Your task to perform on an android device: Go to eBay Image 0: 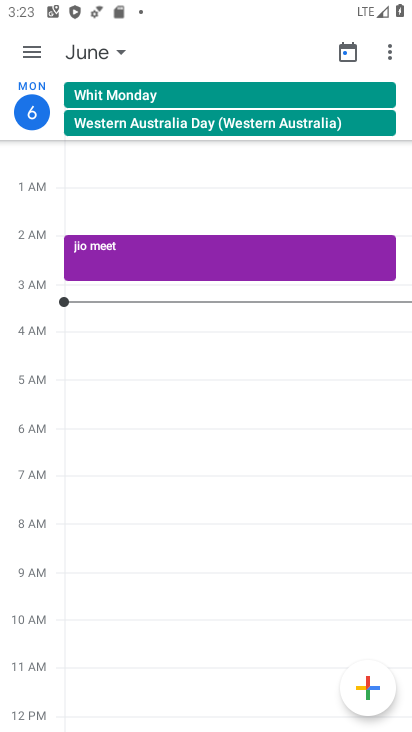
Step 0: press home button
Your task to perform on an android device: Go to eBay Image 1: 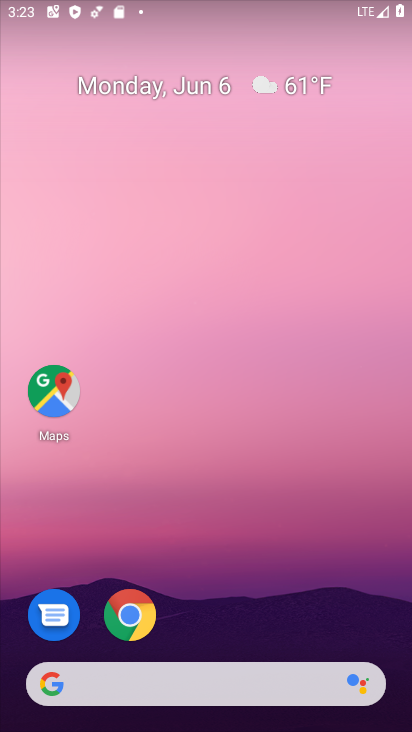
Step 1: click (130, 614)
Your task to perform on an android device: Go to eBay Image 2: 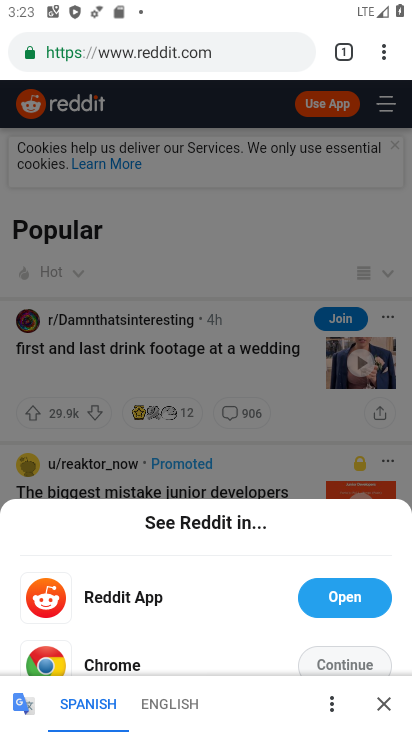
Step 2: click (231, 45)
Your task to perform on an android device: Go to eBay Image 3: 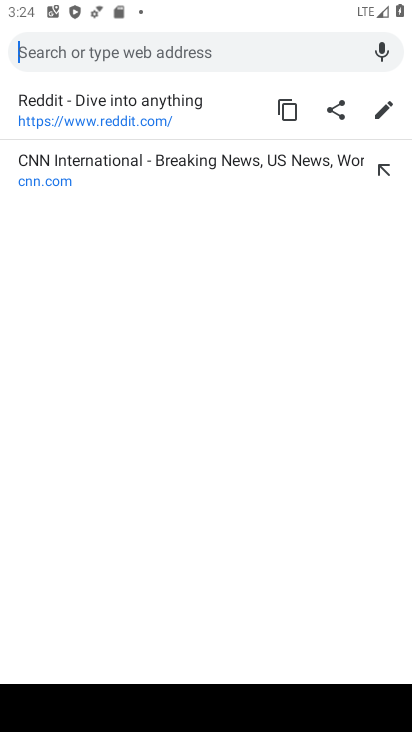
Step 3: type "ebay"
Your task to perform on an android device: Go to eBay Image 4: 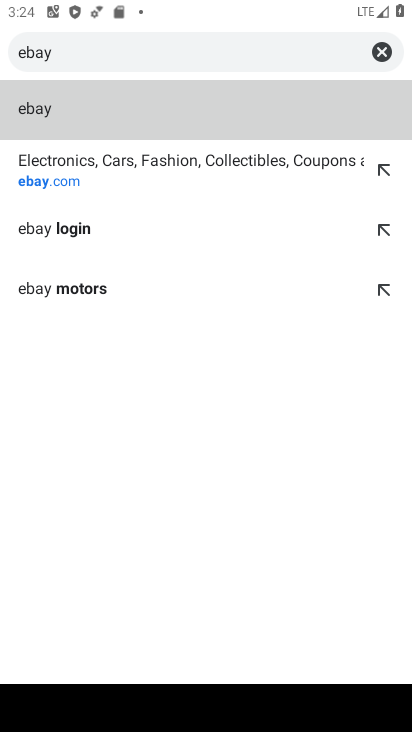
Step 4: click (62, 175)
Your task to perform on an android device: Go to eBay Image 5: 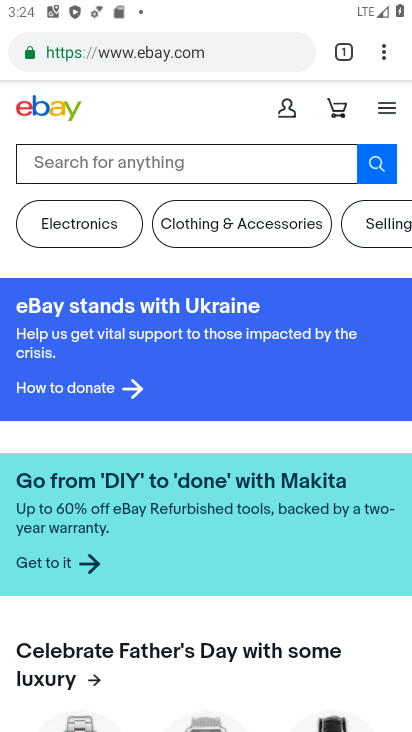
Step 5: task complete